Your task to perform on an android device: check data usage Image 0: 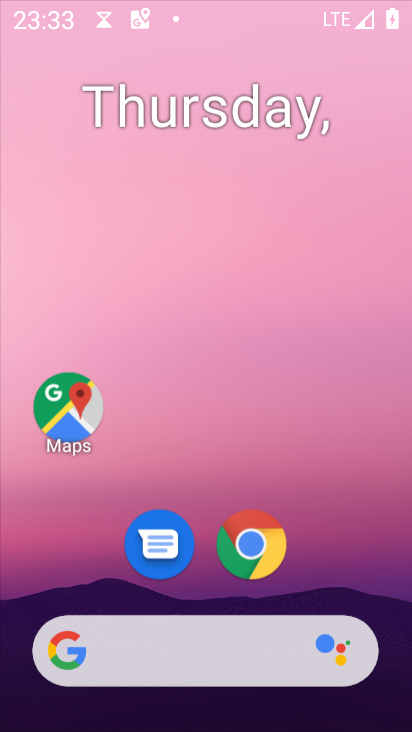
Step 0: click (256, 541)
Your task to perform on an android device: check data usage Image 1: 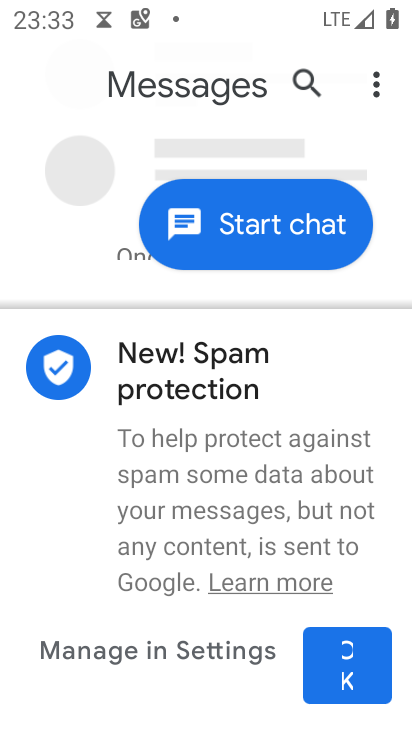
Step 1: press back button
Your task to perform on an android device: check data usage Image 2: 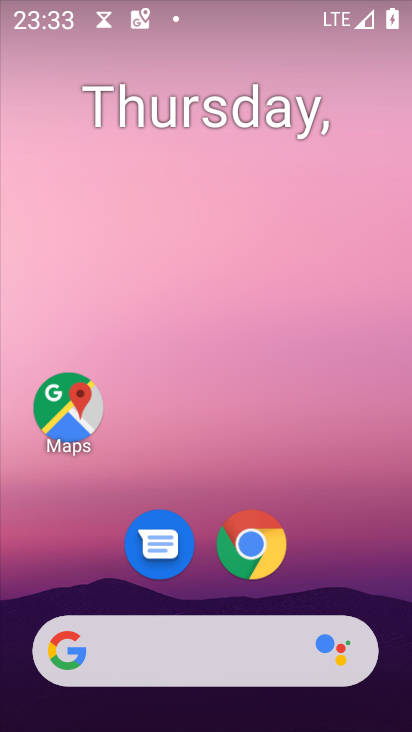
Step 2: drag from (341, 574) to (276, 147)
Your task to perform on an android device: check data usage Image 3: 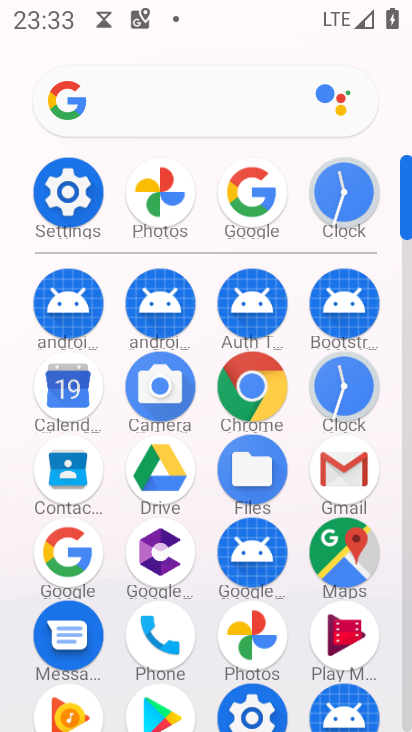
Step 3: click (252, 716)
Your task to perform on an android device: check data usage Image 4: 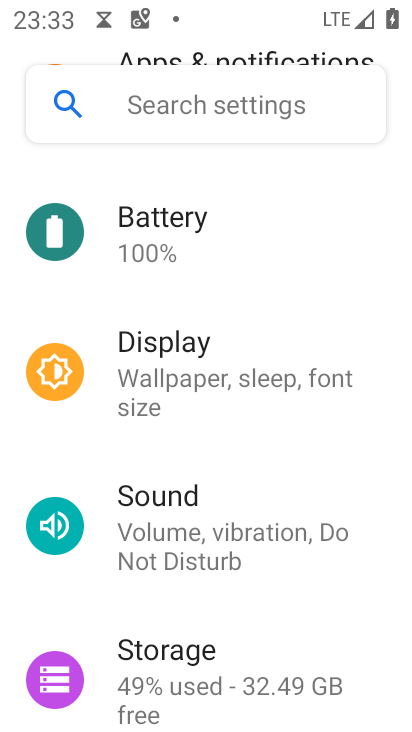
Step 4: click (169, 696)
Your task to perform on an android device: check data usage Image 5: 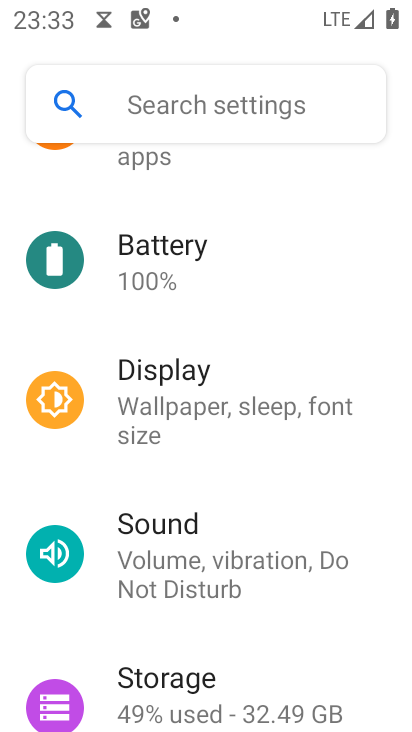
Step 5: drag from (198, 270) to (156, 569)
Your task to perform on an android device: check data usage Image 6: 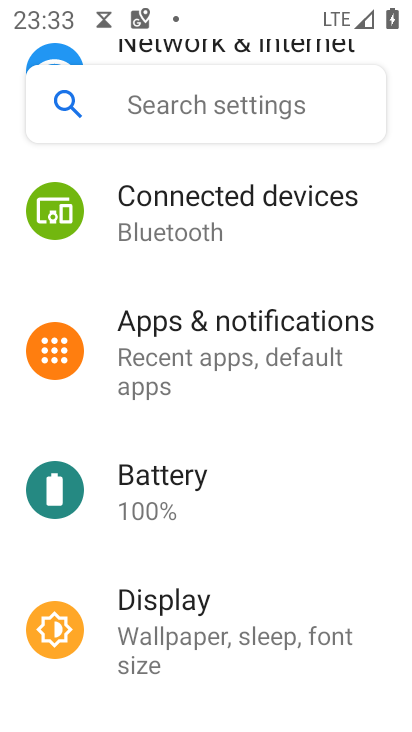
Step 6: drag from (190, 220) to (176, 572)
Your task to perform on an android device: check data usage Image 7: 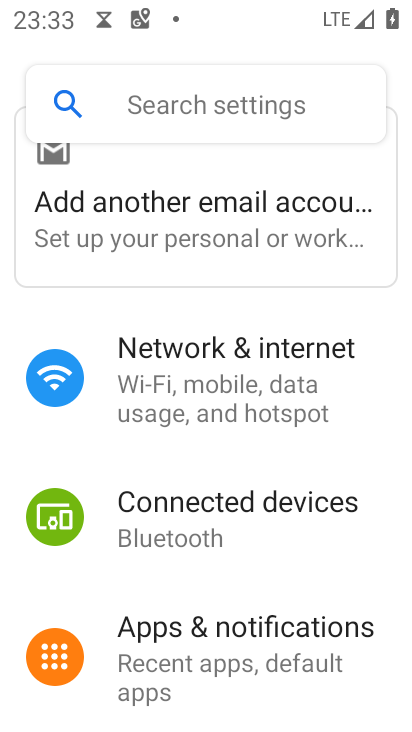
Step 7: click (177, 387)
Your task to perform on an android device: check data usage Image 8: 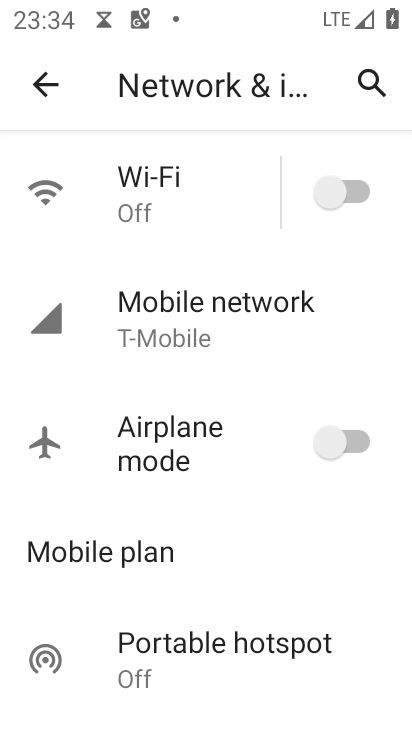
Step 8: drag from (222, 666) to (236, 473)
Your task to perform on an android device: check data usage Image 9: 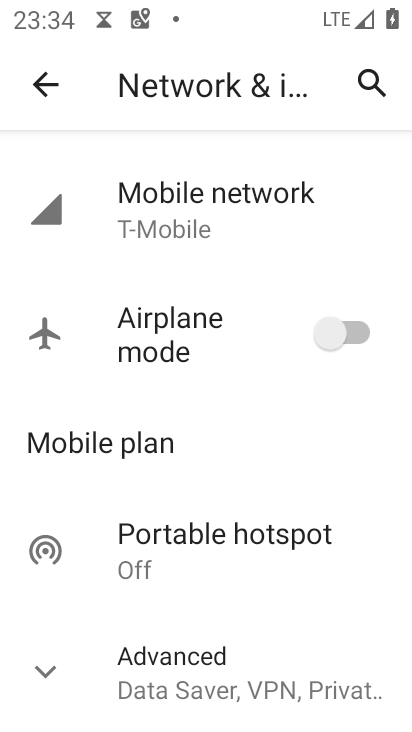
Step 9: drag from (184, 289) to (158, 623)
Your task to perform on an android device: check data usage Image 10: 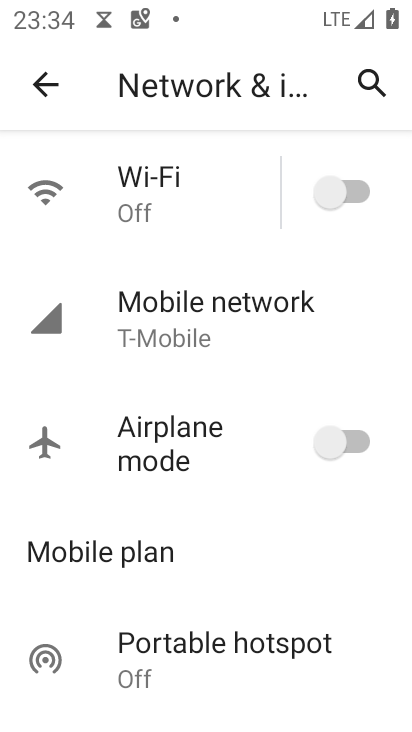
Step 10: click (178, 204)
Your task to perform on an android device: check data usage Image 11: 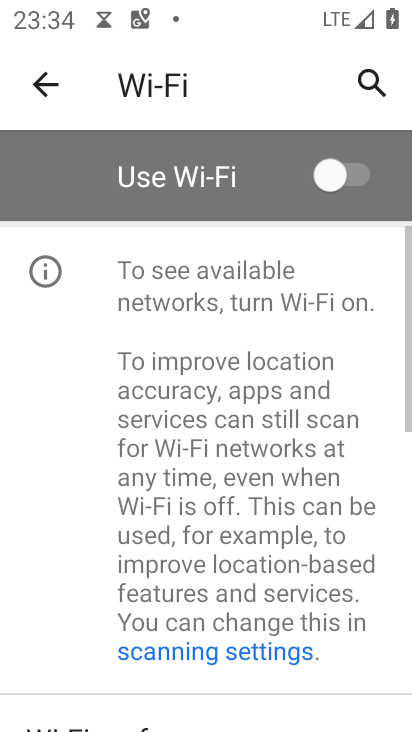
Step 11: task complete